Your task to perform on an android device: Open Maps and search for coffee Image 0: 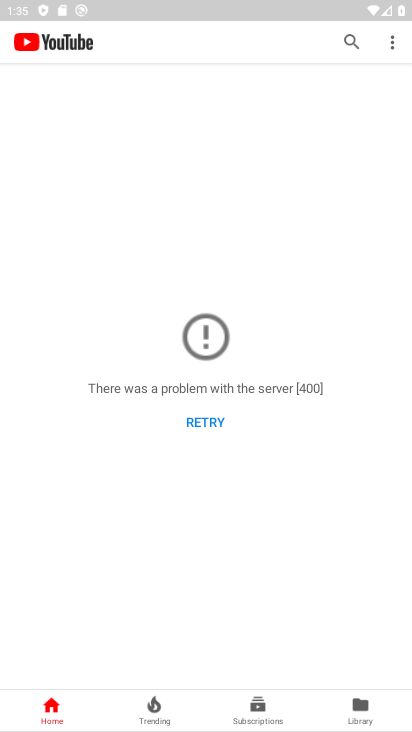
Step 0: press home button
Your task to perform on an android device: Open Maps and search for coffee Image 1: 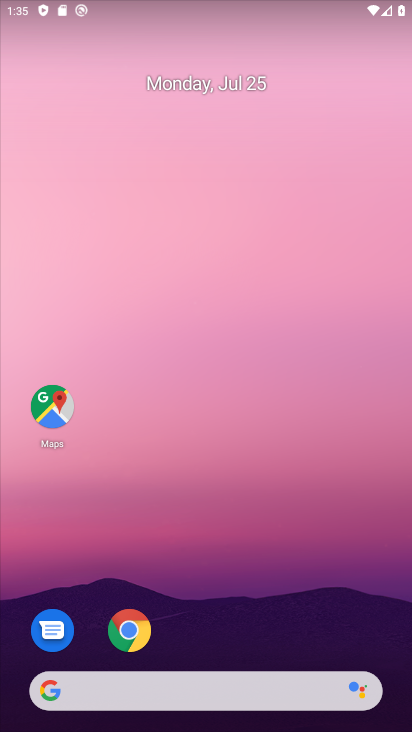
Step 1: drag from (187, 650) to (163, 54)
Your task to perform on an android device: Open Maps and search for coffee Image 2: 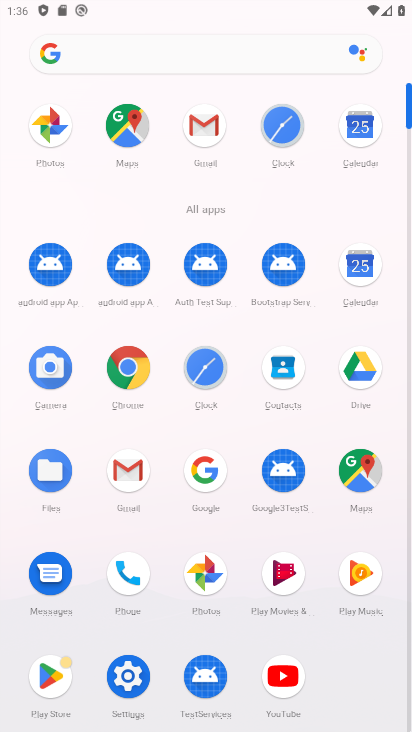
Step 2: click (117, 136)
Your task to perform on an android device: Open Maps and search for coffee Image 3: 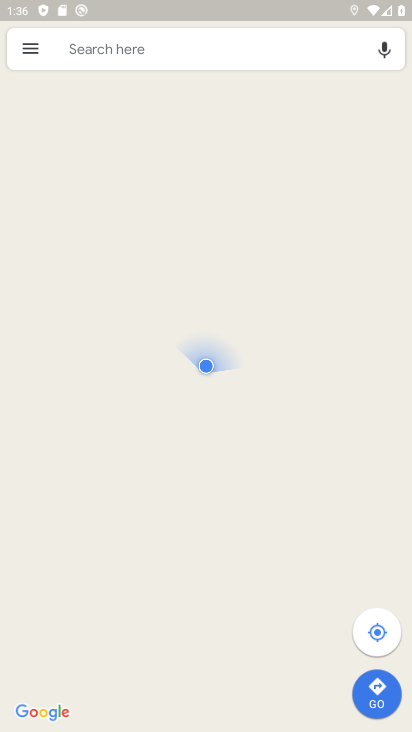
Step 3: click (155, 44)
Your task to perform on an android device: Open Maps and search for coffee Image 4: 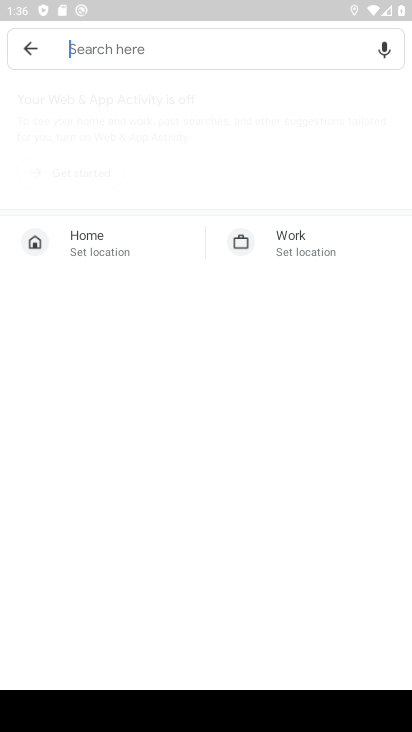
Step 4: type "coffee"
Your task to perform on an android device: Open Maps and search for coffee Image 5: 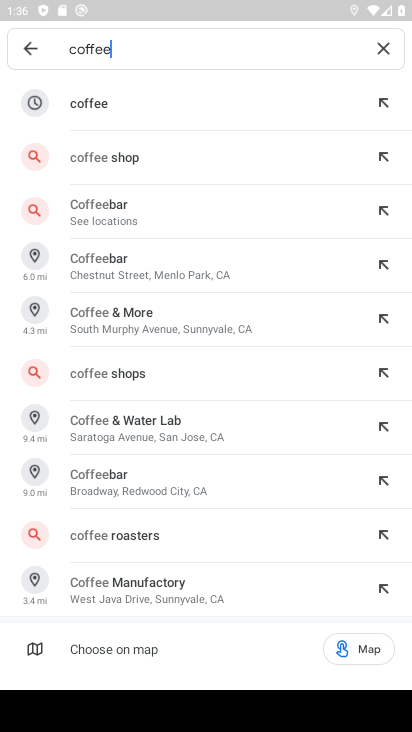
Step 5: click (217, 117)
Your task to perform on an android device: Open Maps and search for coffee Image 6: 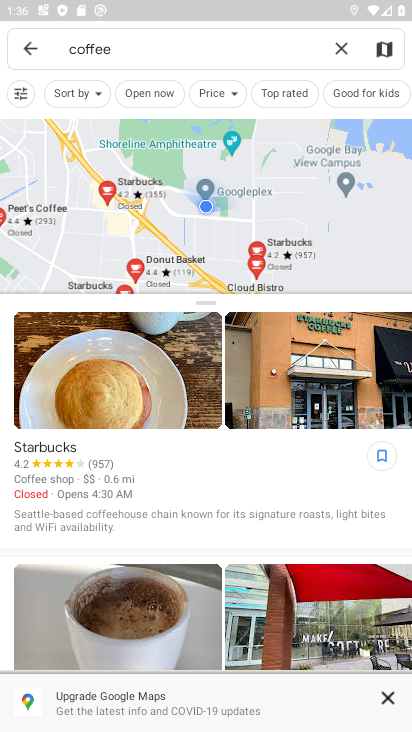
Step 6: task complete